Your task to perform on an android device: set default search engine in the chrome app Image 0: 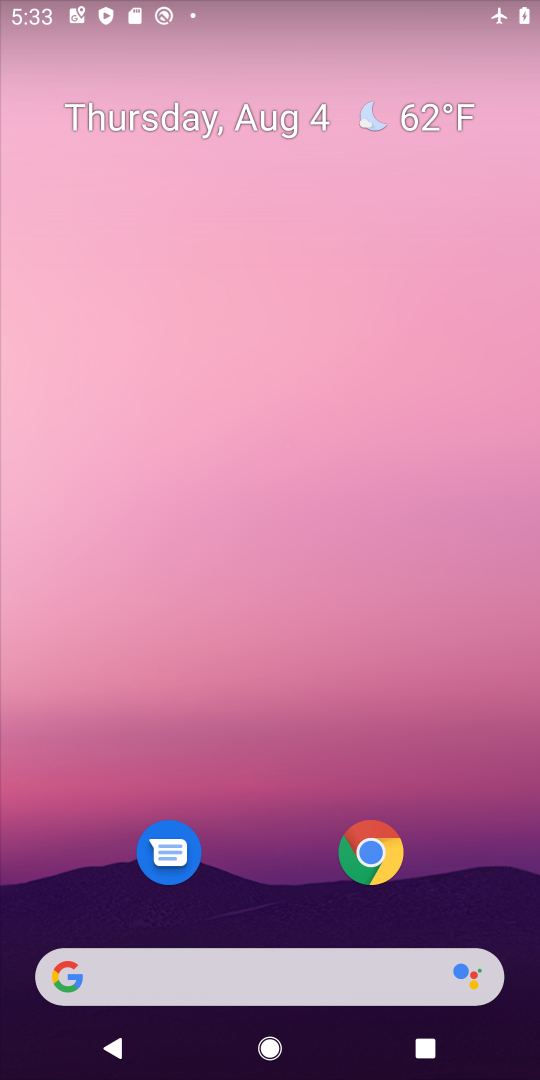
Step 0: click (377, 856)
Your task to perform on an android device: set default search engine in the chrome app Image 1: 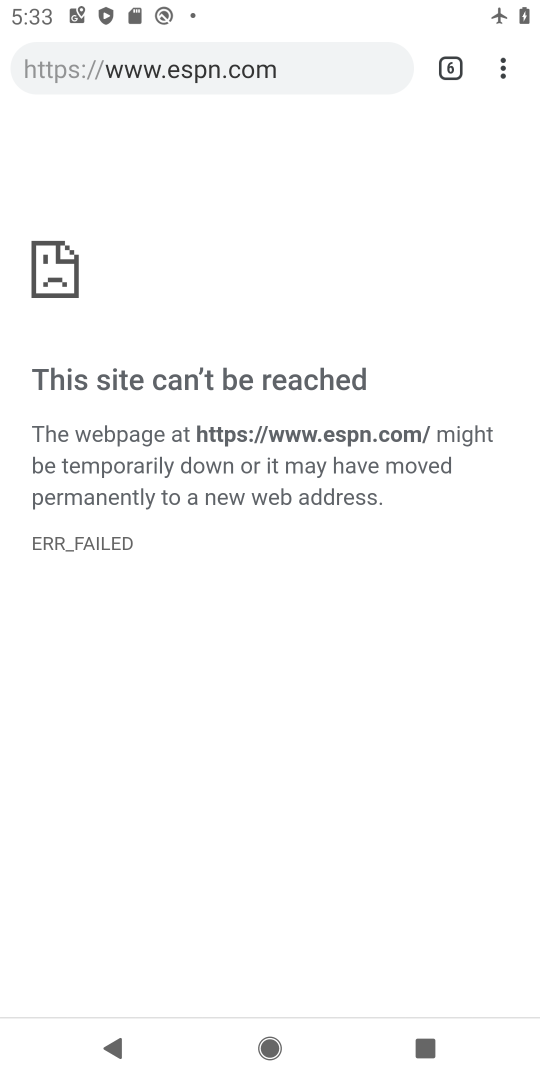
Step 1: click (503, 82)
Your task to perform on an android device: set default search engine in the chrome app Image 2: 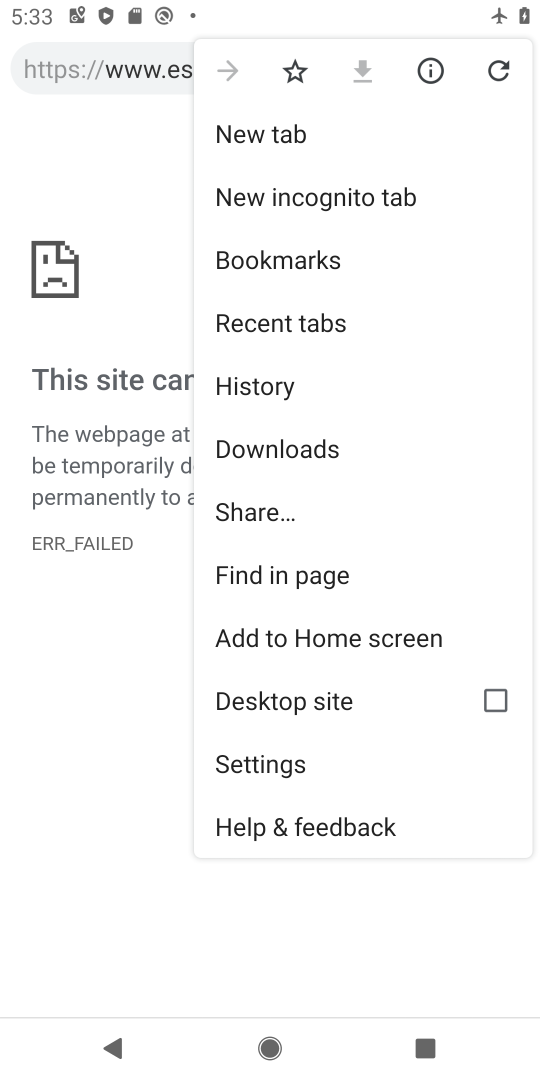
Step 2: click (248, 762)
Your task to perform on an android device: set default search engine in the chrome app Image 3: 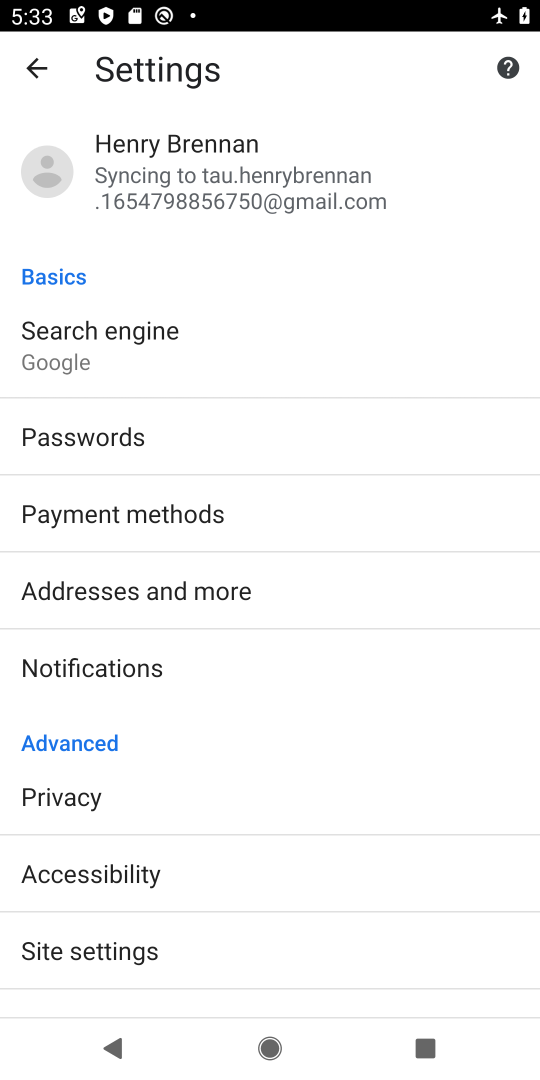
Step 3: click (77, 351)
Your task to perform on an android device: set default search engine in the chrome app Image 4: 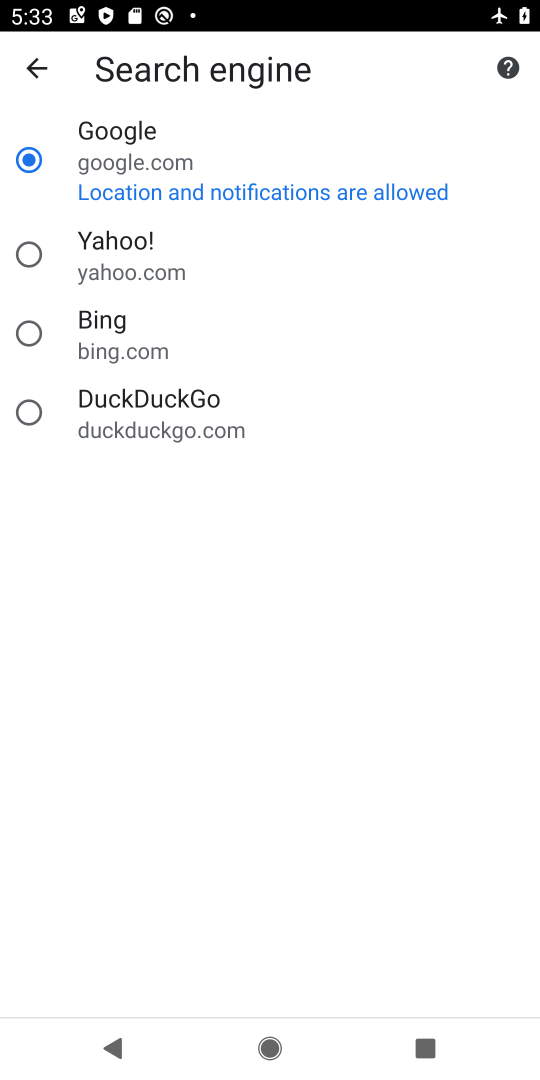
Step 4: click (27, 262)
Your task to perform on an android device: set default search engine in the chrome app Image 5: 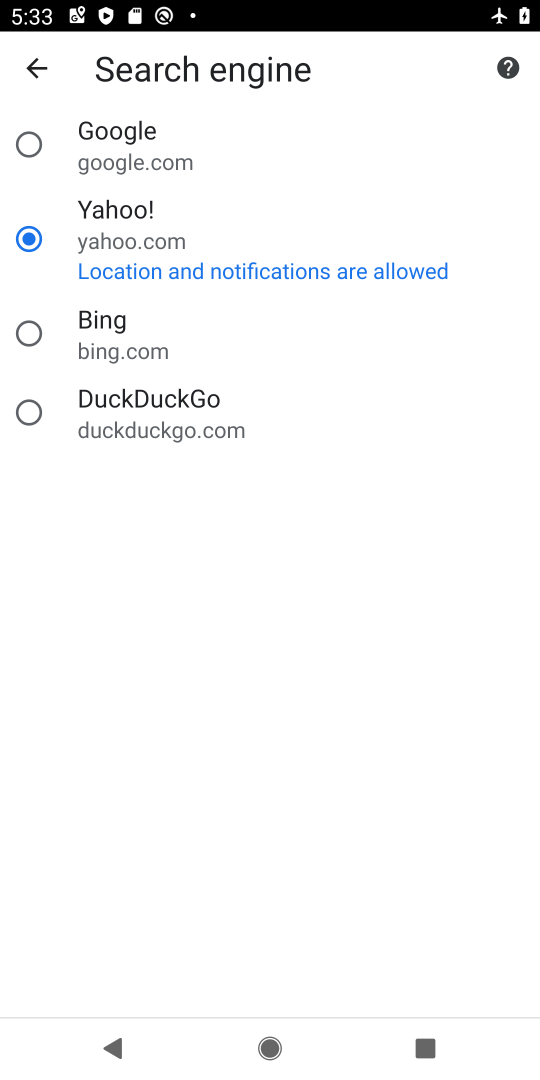
Step 5: task complete